Your task to perform on an android device: show emergency info Image 0: 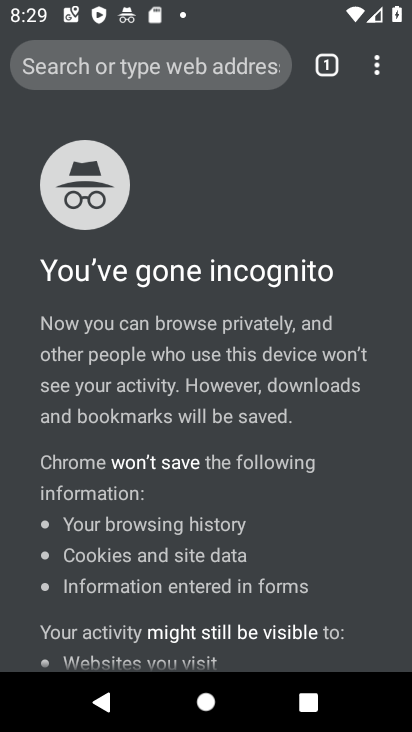
Step 0: press home button
Your task to perform on an android device: show emergency info Image 1: 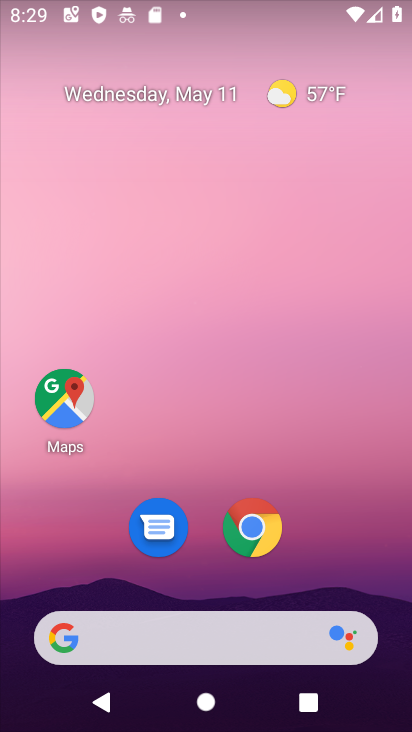
Step 1: drag from (353, 267) to (349, 30)
Your task to perform on an android device: show emergency info Image 2: 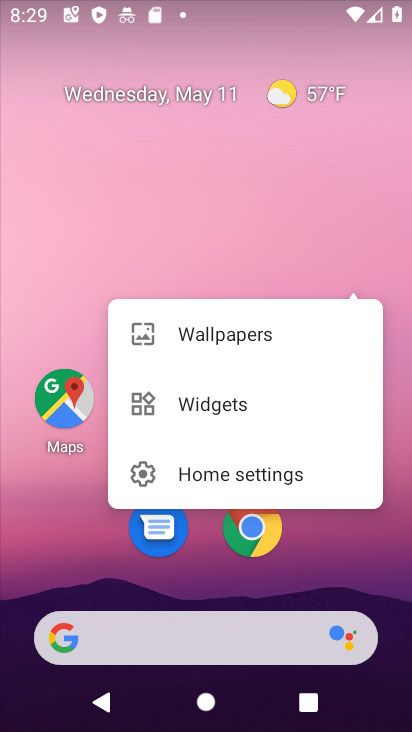
Step 2: drag from (381, 358) to (380, 9)
Your task to perform on an android device: show emergency info Image 3: 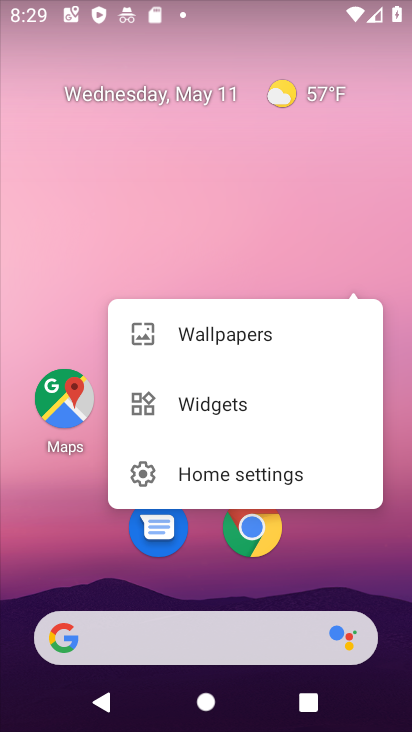
Step 3: drag from (401, 551) to (387, 11)
Your task to perform on an android device: show emergency info Image 4: 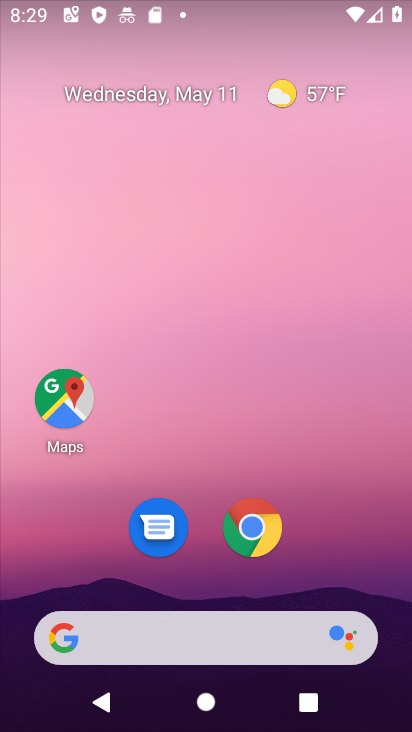
Step 4: drag from (318, 406) to (284, 10)
Your task to perform on an android device: show emergency info Image 5: 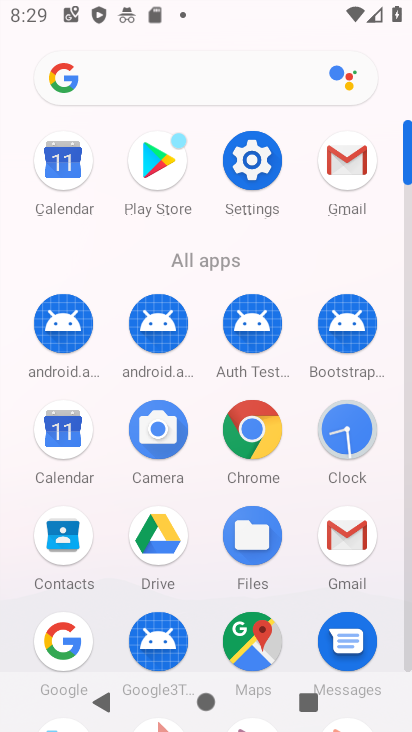
Step 5: click (249, 176)
Your task to perform on an android device: show emergency info Image 6: 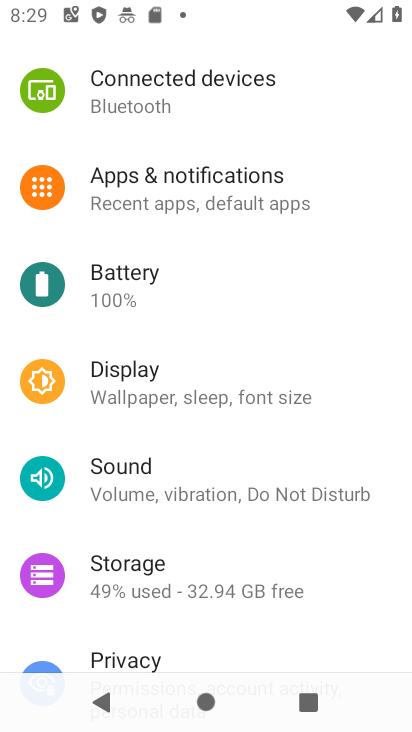
Step 6: drag from (334, 235) to (308, 16)
Your task to perform on an android device: show emergency info Image 7: 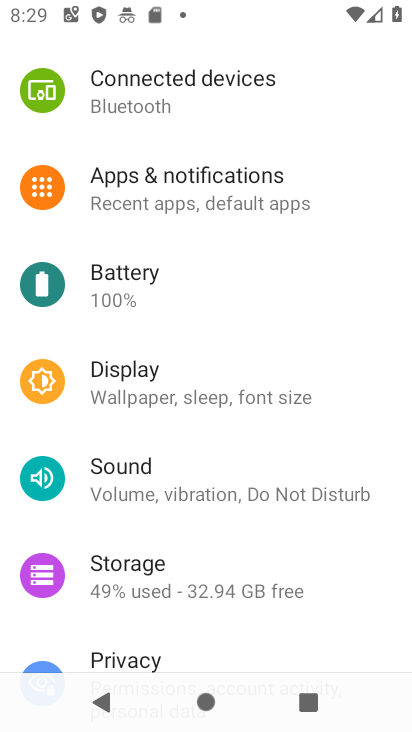
Step 7: drag from (341, 590) to (362, 90)
Your task to perform on an android device: show emergency info Image 8: 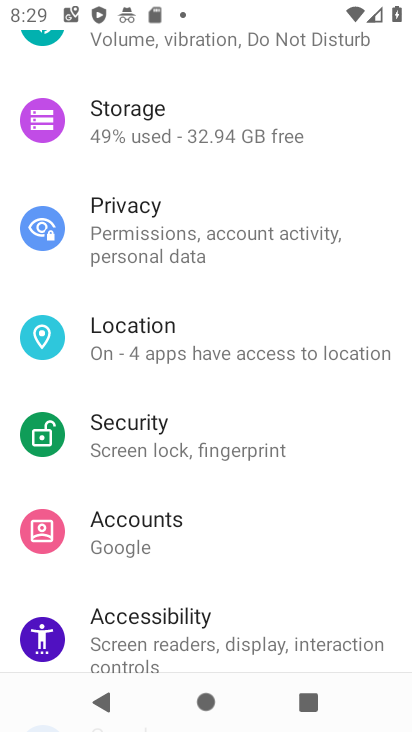
Step 8: drag from (345, 585) to (283, 45)
Your task to perform on an android device: show emergency info Image 9: 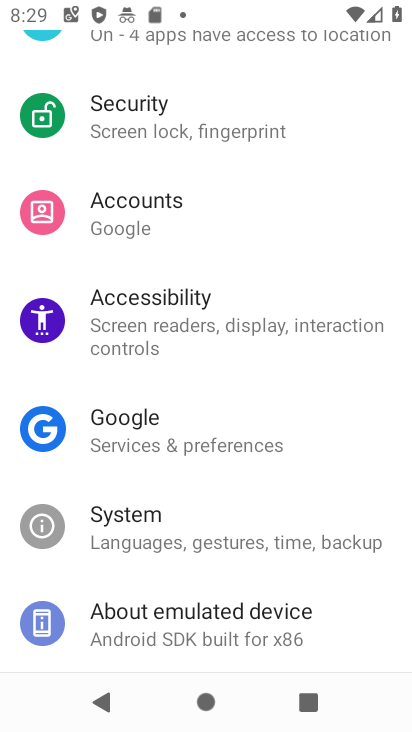
Step 9: click (255, 646)
Your task to perform on an android device: show emergency info Image 10: 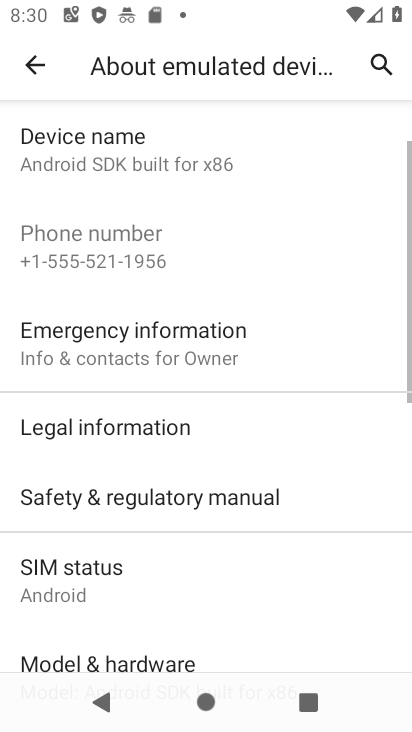
Step 10: click (101, 357)
Your task to perform on an android device: show emergency info Image 11: 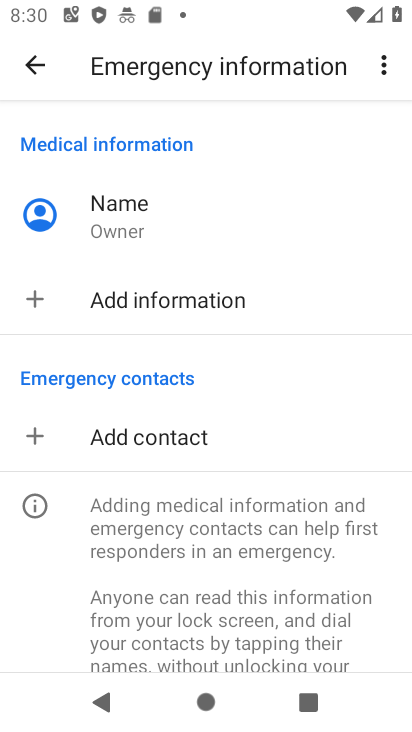
Step 11: task complete